Your task to perform on an android device: turn on bluetooth scan Image 0: 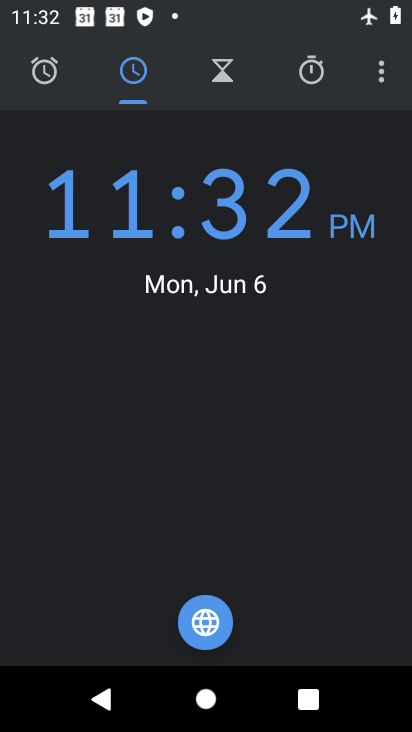
Step 0: press home button
Your task to perform on an android device: turn on bluetooth scan Image 1: 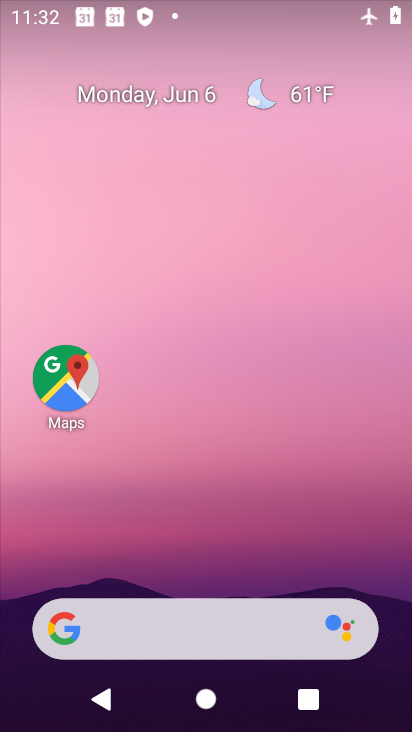
Step 1: drag from (292, 565) to (285, 108)
Your task to perform on an android device: turn on bluetooth scan Image 2: 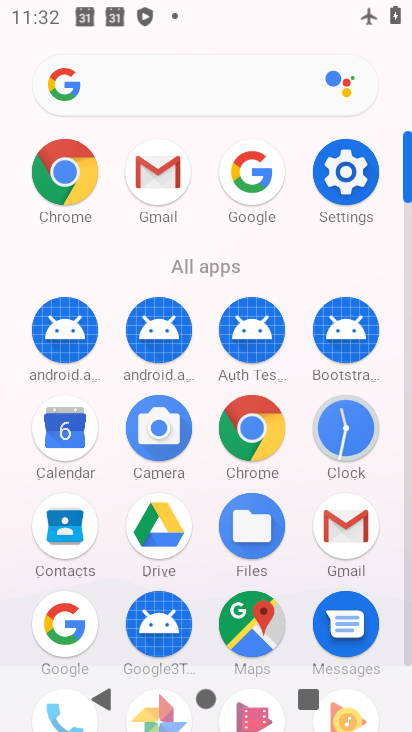
Step 2: click (353, 173)
Your task to perform on an android device: turn on bluetooth scan Image 3: 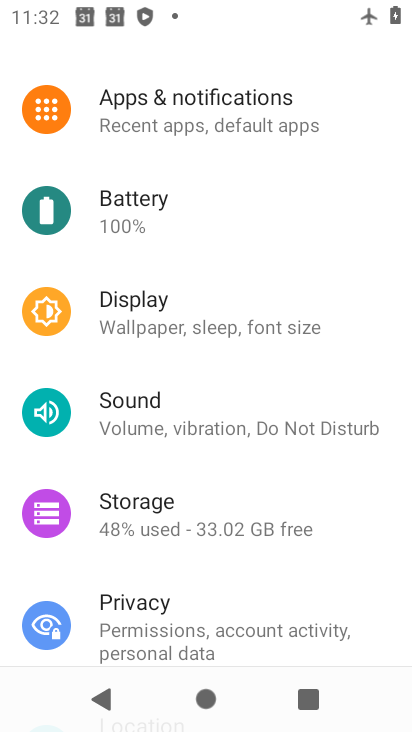
Step 3: drag from (314, 530) to (279, 63)
Your task to perform on an android device: turn on bluetooth scan Image 4: 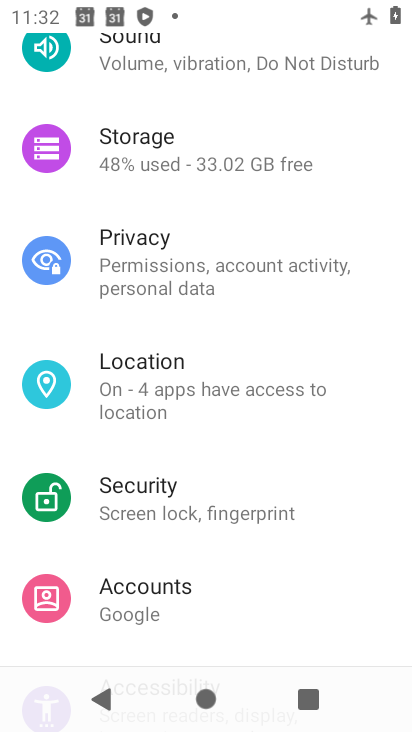
Step 4: click (133, 400)
Your task to perform on an android device: turn on bluetooth scan Image 5: 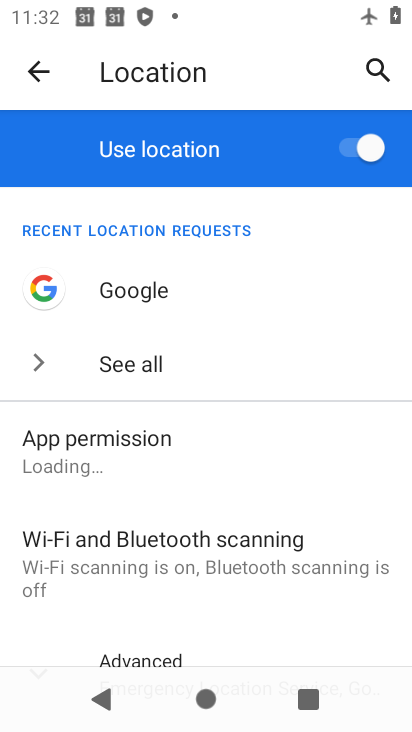
Step 5: drag from (279, 499) to (282, 263)
Your task to perform on an android device: turn on bluetooth scan Image 6: 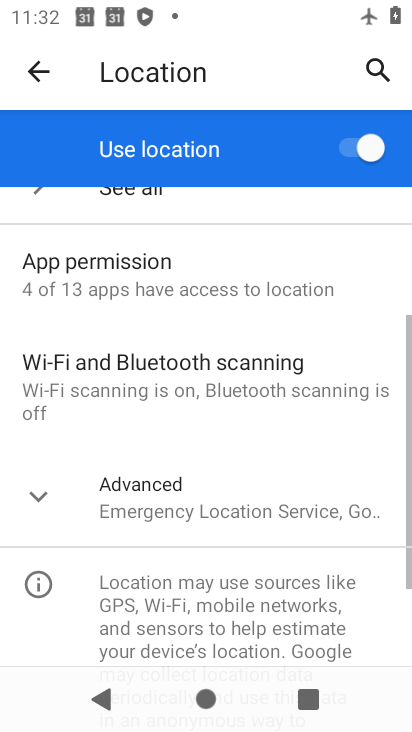
Step 6: click (241, 385)
Your task to perform on an android device: turn on bluetooth scan Image 7: 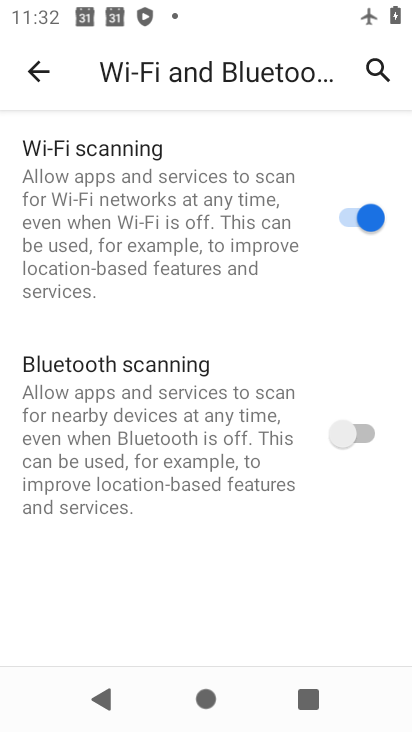
Step 7: click (338, 439)
Your task to perform on an android device: turn on bluetooth scan Image 8: 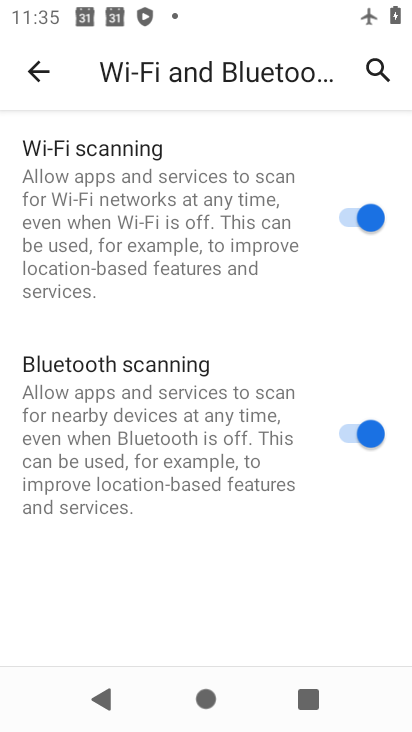
Step 8: task complete